Your task to perform on an android device: What's the weather? Image 0: 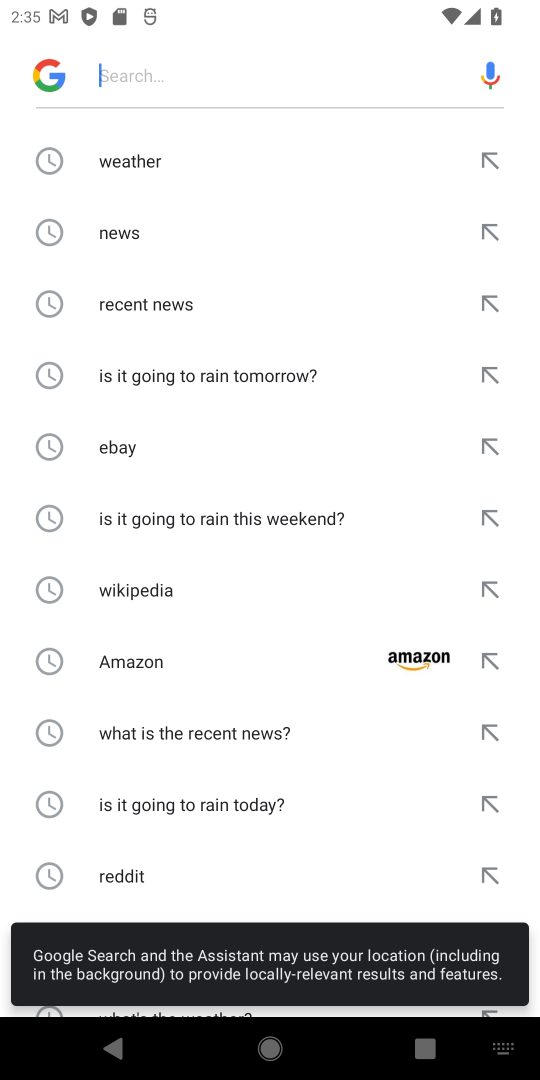
Step 0: press home button
Your task to perform on an android device: What's the weather? Image 1: 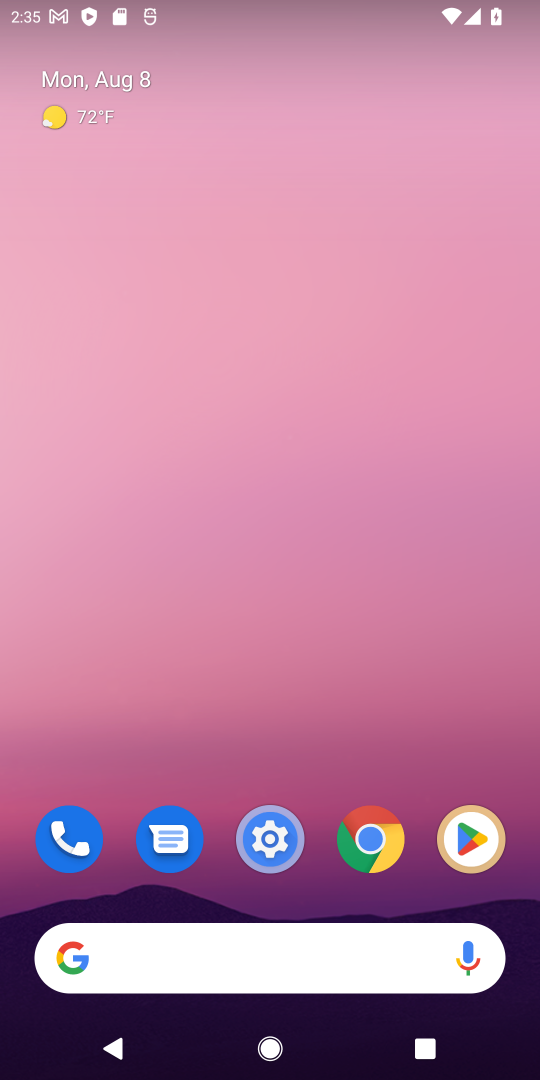
Step 1: click (299, 962)
Your task to perform on an android device: What's the weather? Image 2: 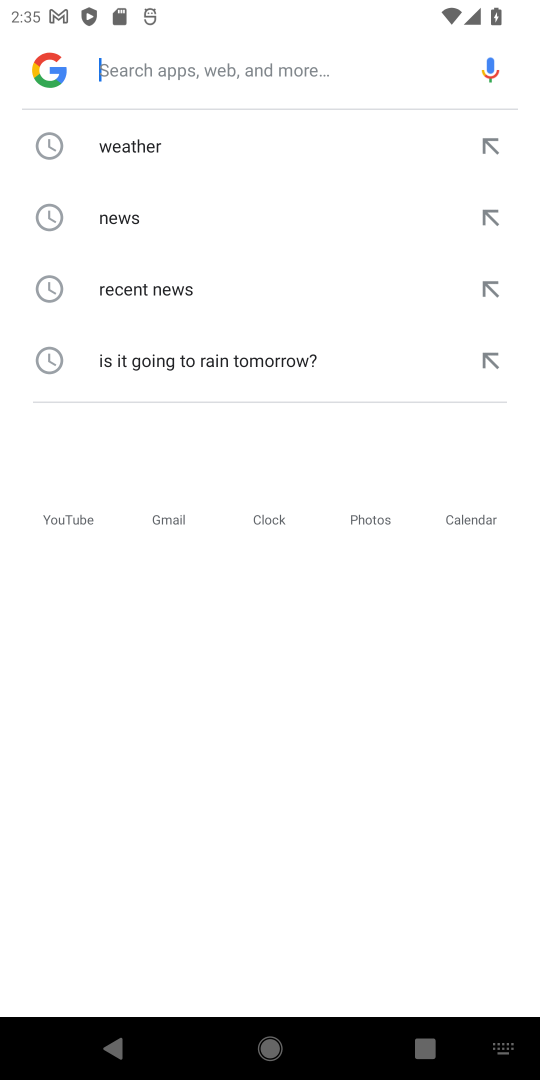
Step 2: click (161, 150)
Your task to perform on an android device: What's the weather? Image 3: 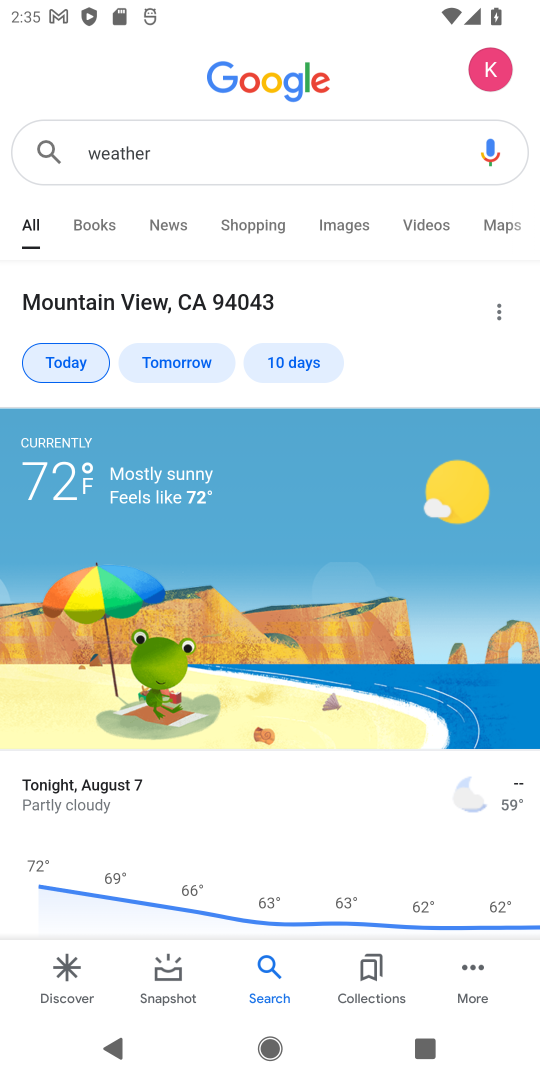
Step 3: task complete